Your task to perform on an android device: open a bookmark in the chrome app Image 0: 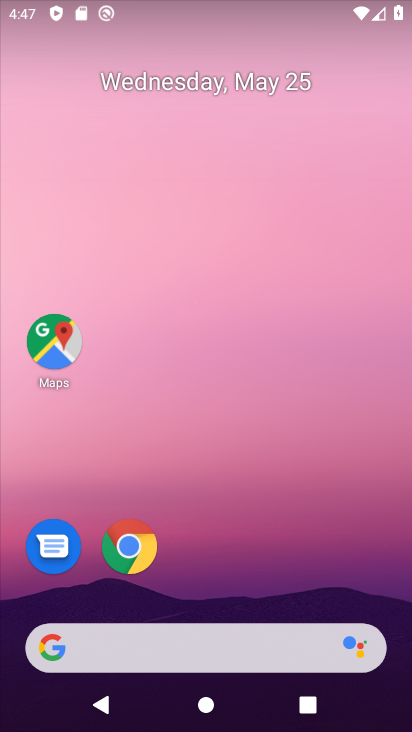
Step 0: click (137, 548)
Your task to perform on an android device: open a bookmark in the chrome app Image 1: 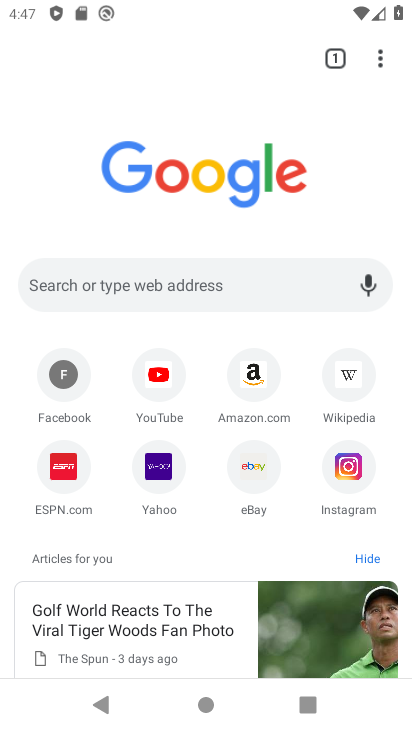
Step 1: click (377, 54)
Your task to perform on an android device: open a bookmark in the chrome app Image 2: 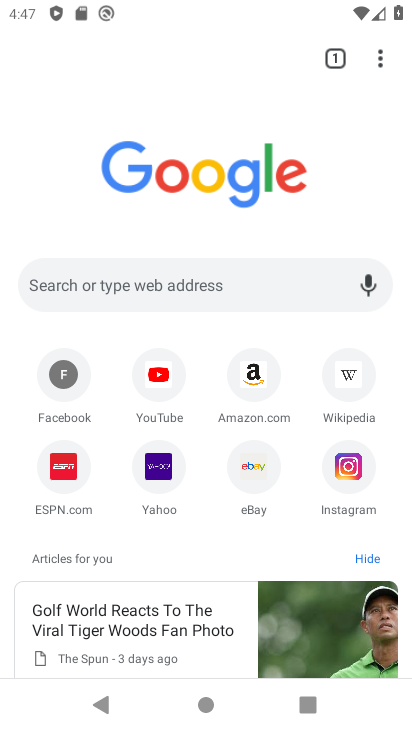
Step 2: click (377, 61)
Your task to perform on an android device: open a bookmark in the chrome app Image 3: 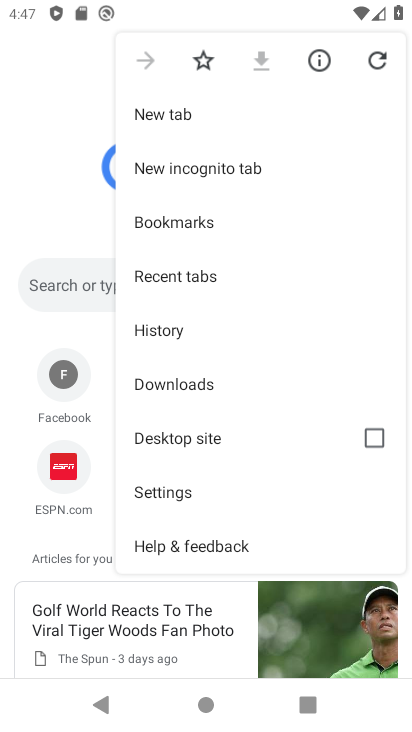
Step 3: click (168, 229)
Your task to perform on an android device: open a bookmark in the chrome app Image 4: 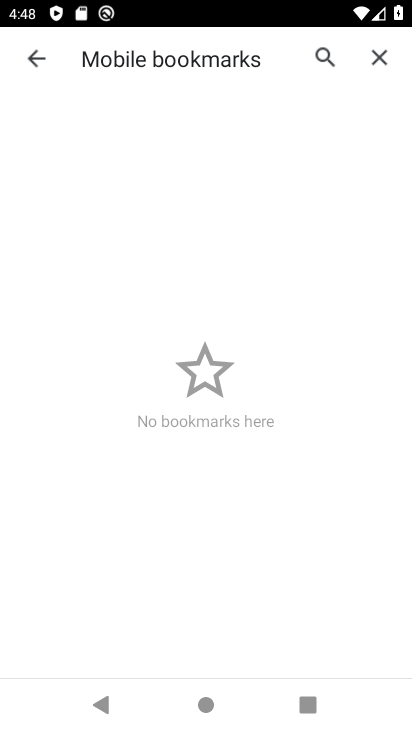
Step 4: task complete